Your task to perform on an android device: Open Google Chrome Image 0: 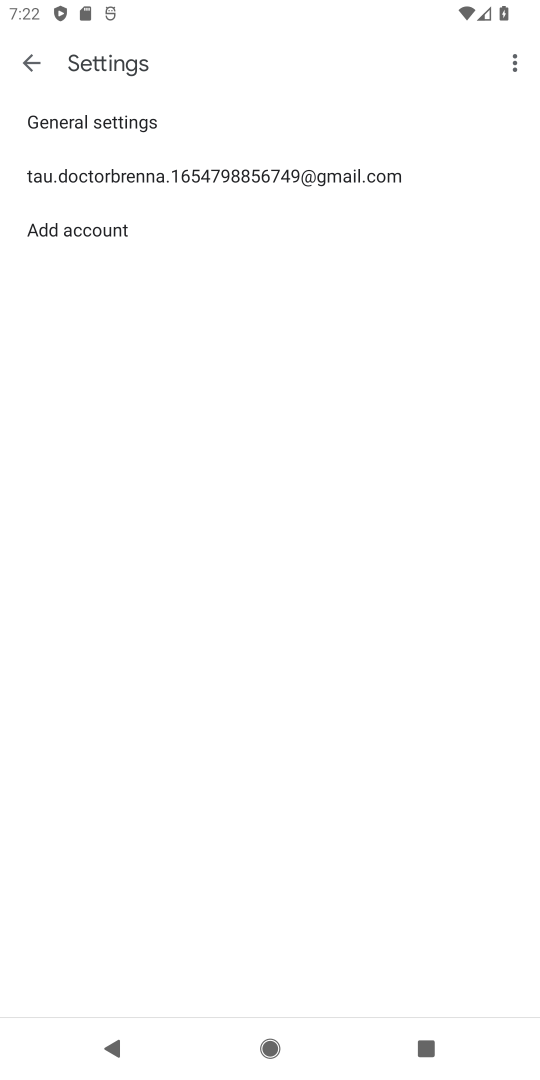
Step 0: press home button
Your task to perform on an android device: Open Google Chrome Image 1: 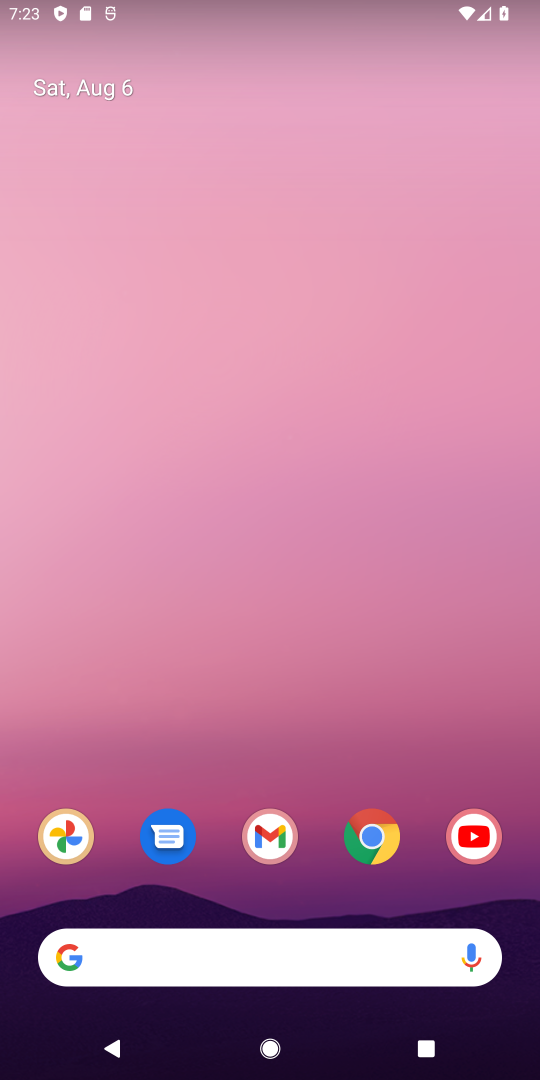
Step 1: click (381, 840)
Your task to perform on an android device: Open Google Chrome Image 2: 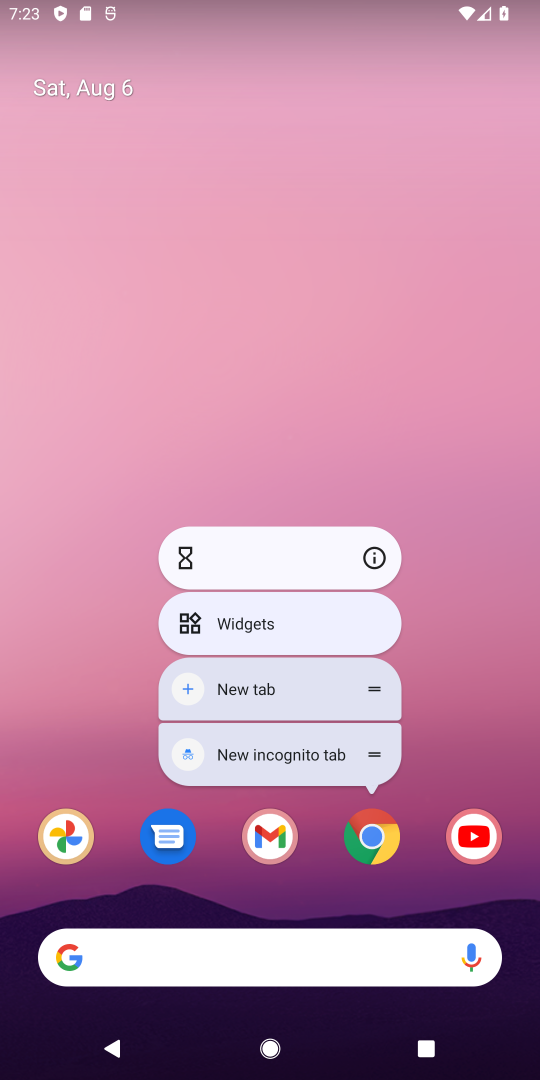
Step 2: drag from (381, 840) to (311, 840)
Your task to perform on an android device: Open Google Chrome Image 3: 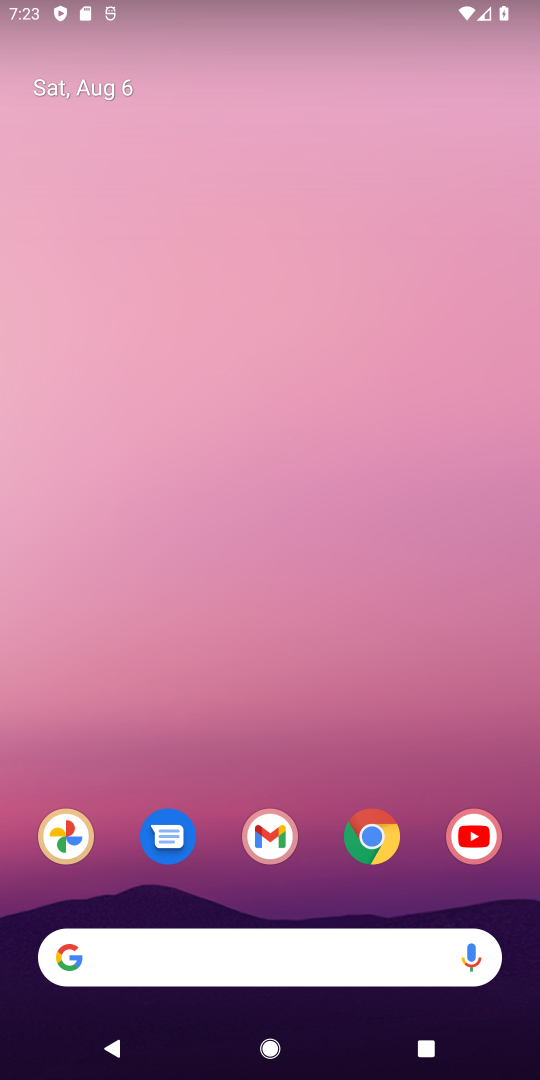
Step 3: click (378, 842)
Your task to perform on an android device: Open Google Chrome Image 4: 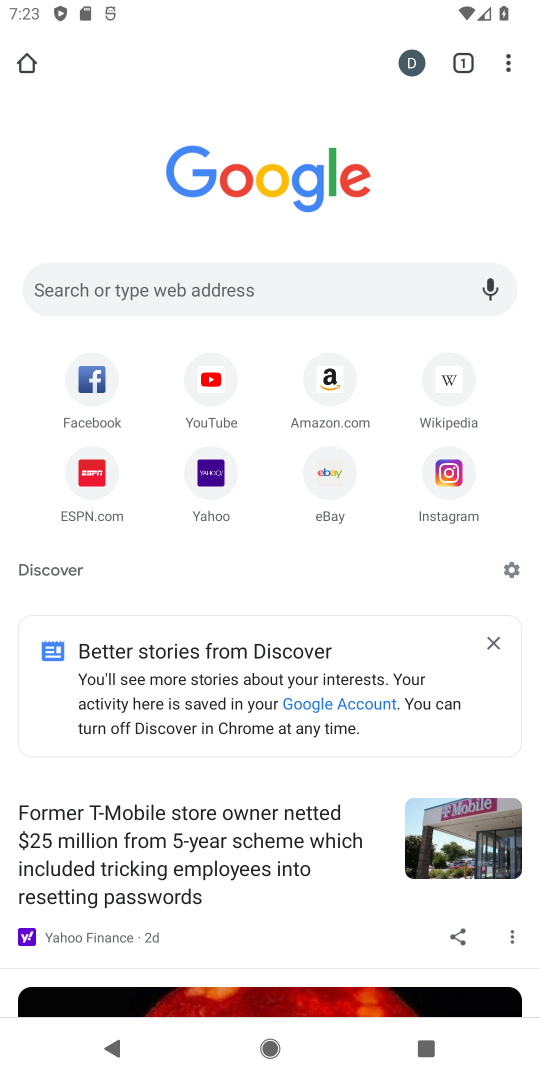
Step 4: task complete